Your task to perform on an android device: delete the emails in spam in the gmail app Image 0: 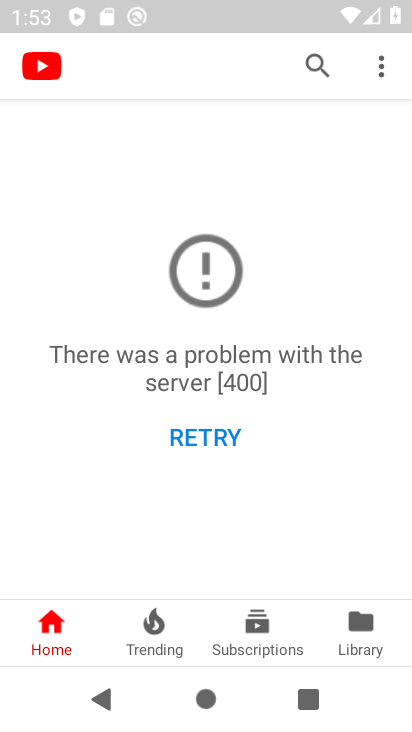
Step 0: press home button
Your task to perform on an android device: delete the emails in spam in the gmail app Image 1: 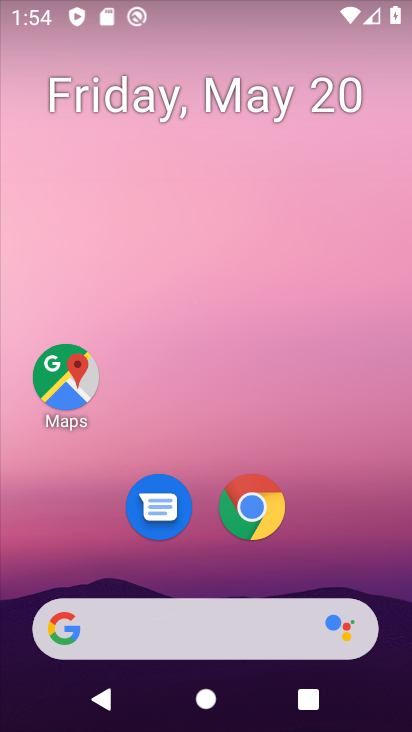
Step 1: drag from (195, 557) to (273, 67)
Your task to perform on an android device: delete the emails in spam in the gmail app Image 2: 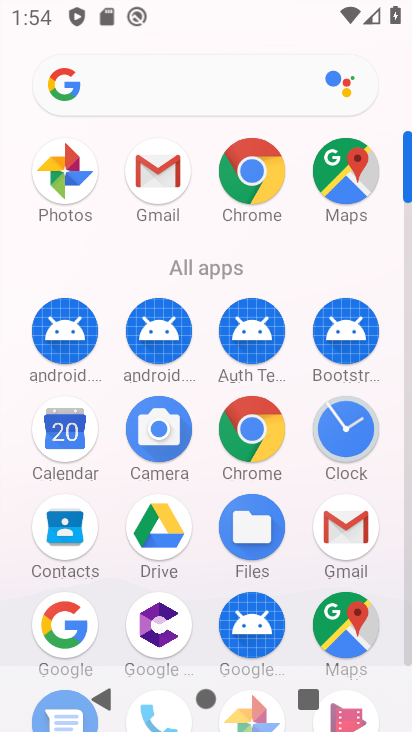
Step 2: click (148, 188)
Your task to perform on an android device: delete the emails in spam in the gmail app Image 3: 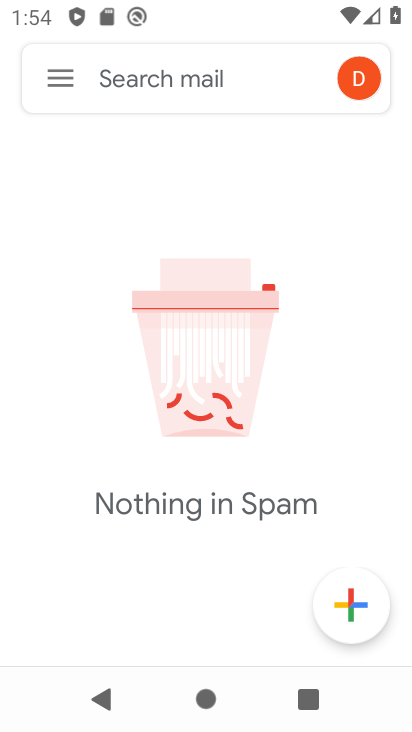
Step 3: click (59, 77)
Your task to perform on an android device: delete the emails in spam in the gmail app Image 4: 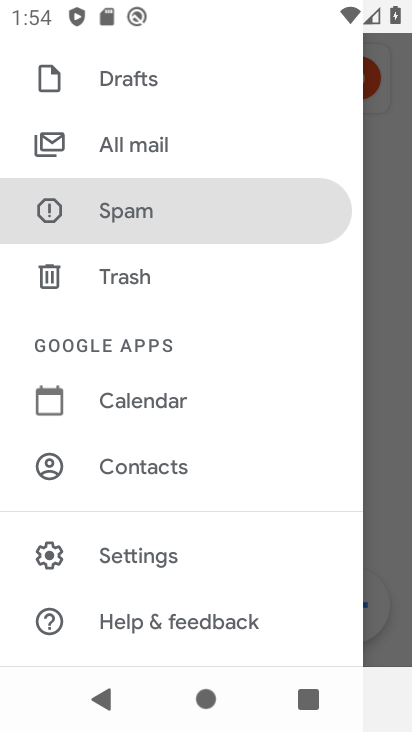
Step 4: click (145, 202)
Your task to perform on an android device: delete the emails in spam in the gmail app Image 5: 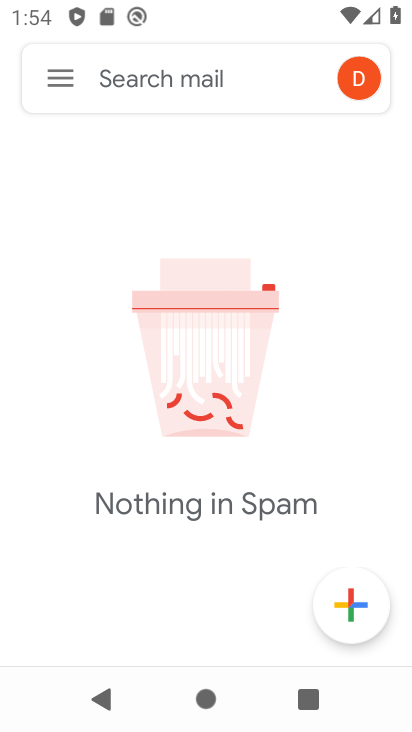
Step 5: task complete